Your task to perform on an android device: find which apps use the phone's location Image 0: 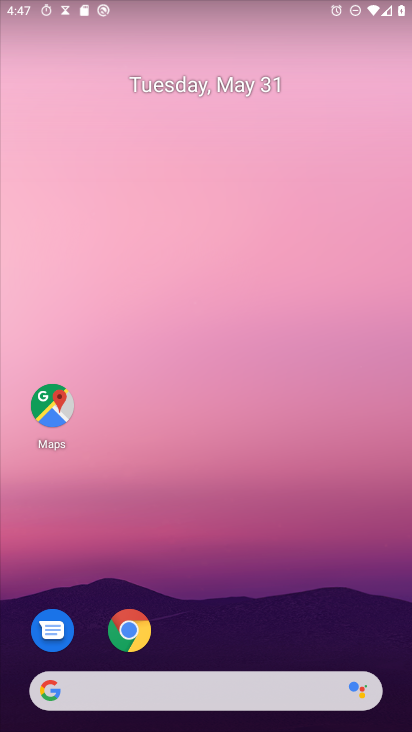
Step 0: drag from (211, 698) to (310, 21)
Your task to perform on an android device: find which apps use the phone's location Image 1: 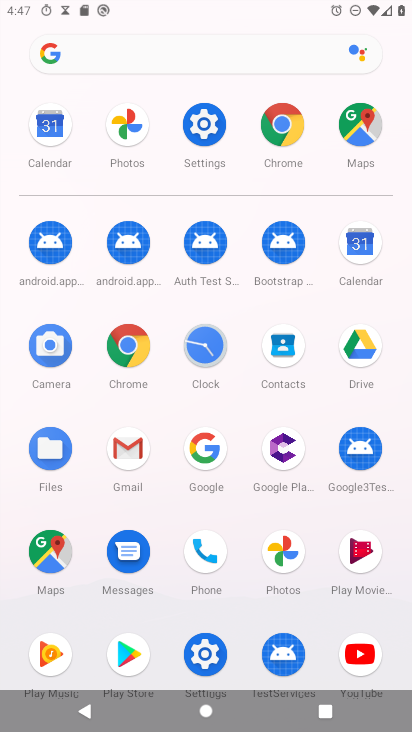
Step 1: click (213, 128)
Your task to perform on an android device: find which apps use the phone's location Image 2: 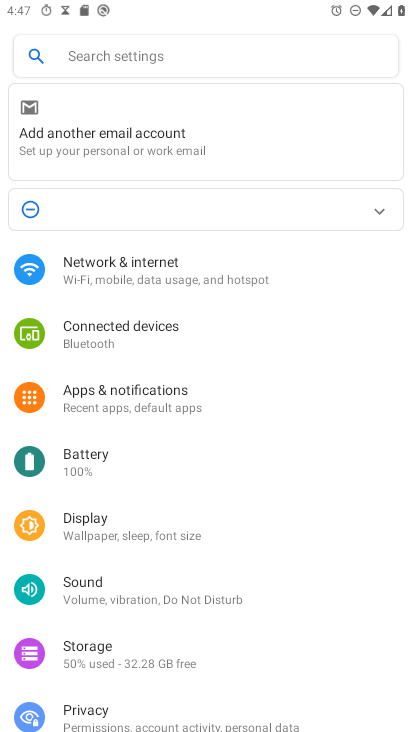
Step 2: drag from (138, 692) to (197, 237)
Your task to perform on an android device: find which apps use the phone's location Image 3: 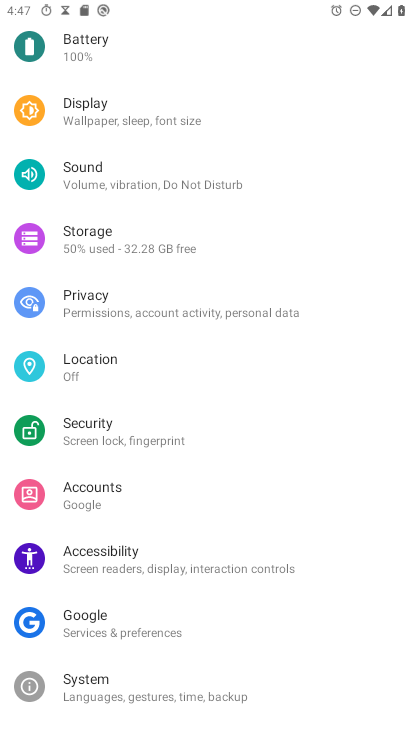
Step 3: click (156, 372)
Your task to perform on an android device: find which apps use the phone's location Image 4: 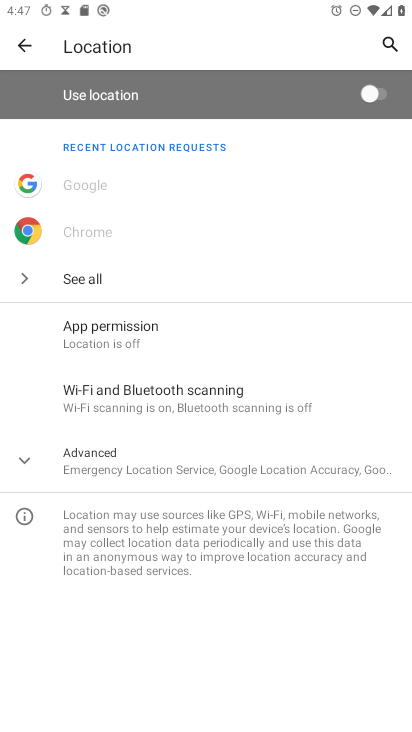
Step 4: click (192, 337)
Your task to perform on an android device: find which apps use the phone's location Image 5: 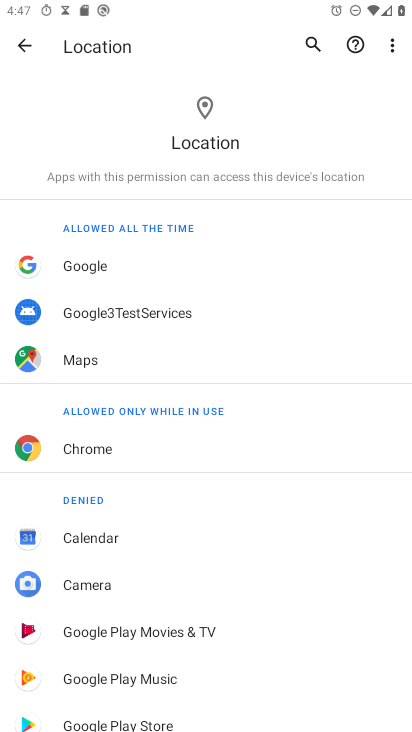
Step 5: task complete